Your task to perform on an android device: Open display settings Image 0: 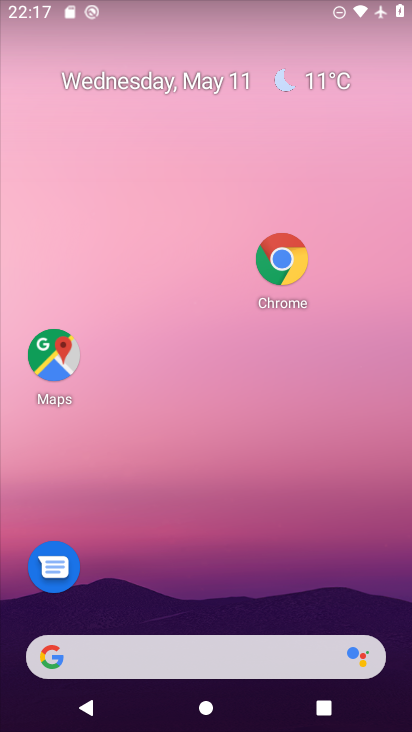
Step 0: press home button
Your task to perform on an android device: Open display settings Image 1: 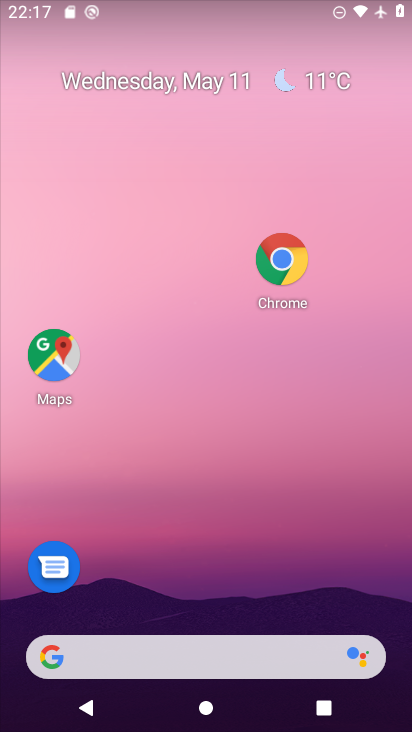
Step 1: drag from (158, 649) to (237, 145)
Your task to perform on an android device: Open display settings Image 2: 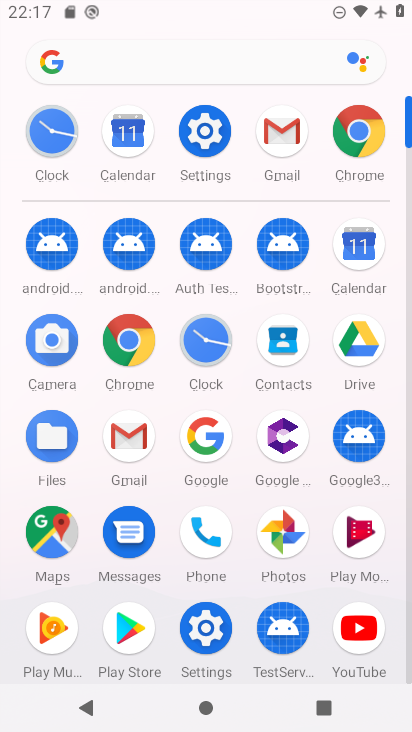
Step 2: click (212, 144)
Your task to perform on an android device: Open display settings Image 3: 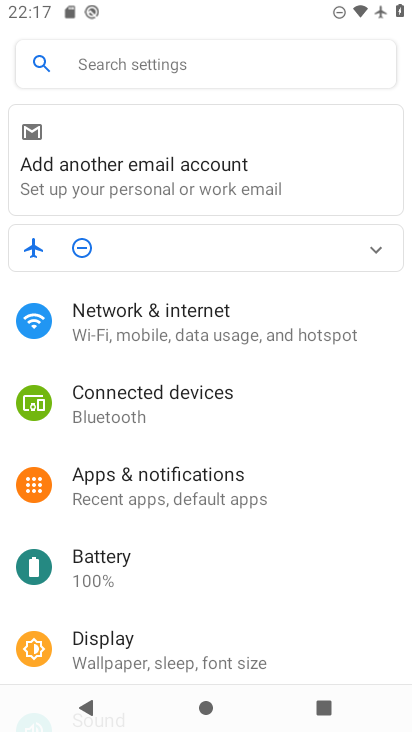
Step 3: click (124, 643)
Your task to perform on an android device: Open display settings Image 4: 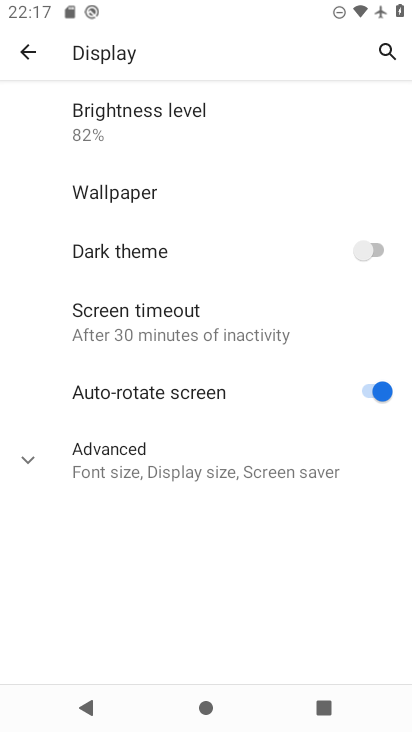
Step 4: task complete